Your task to perform on an android device: turn on location history Image 0: 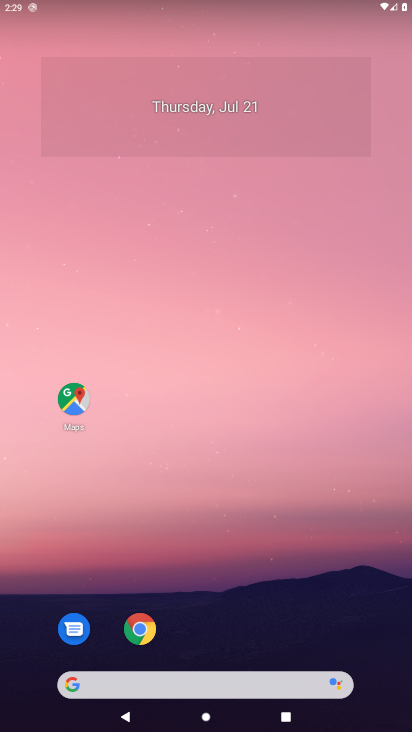
Step 0: drag from (57, 651) to (167, 264)
Your task to perform on an android device: turn on location history Image 1: 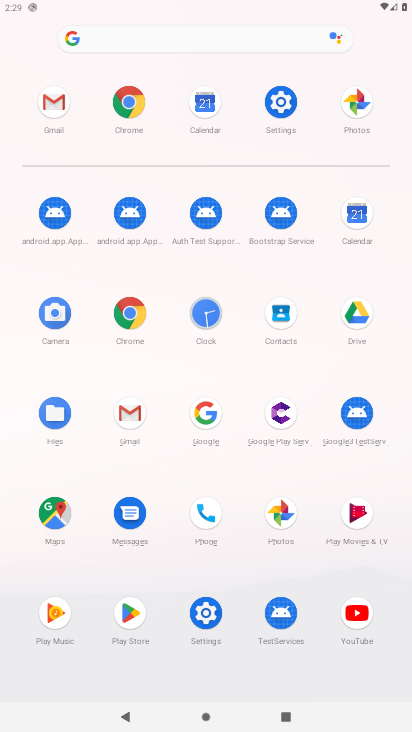
Step 1: click (206, 630)
Your task to perform on an android device: turn on location history Image 2: 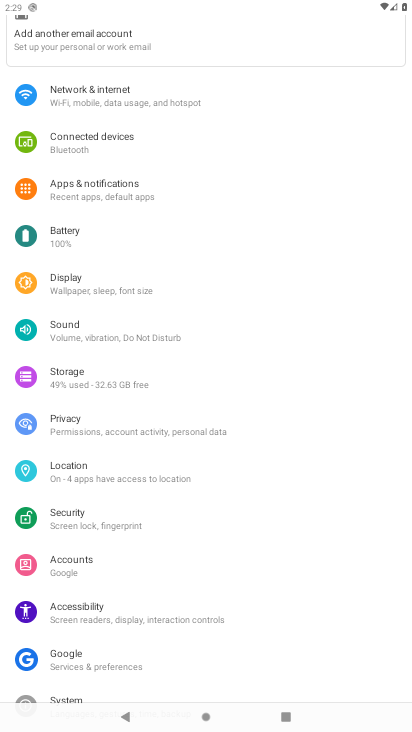
Step 2: click (86, 483)
Your task to perform on an android device: turn on location history Image 3: 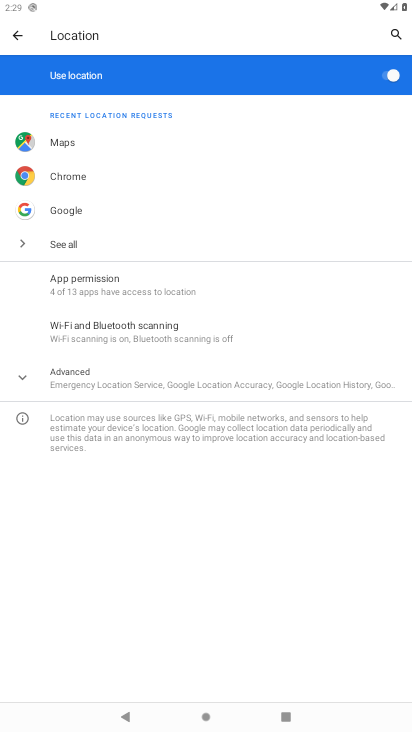
Step 3: click (70, 376)
Your task to perform on an android device: turn on location history Image 4: 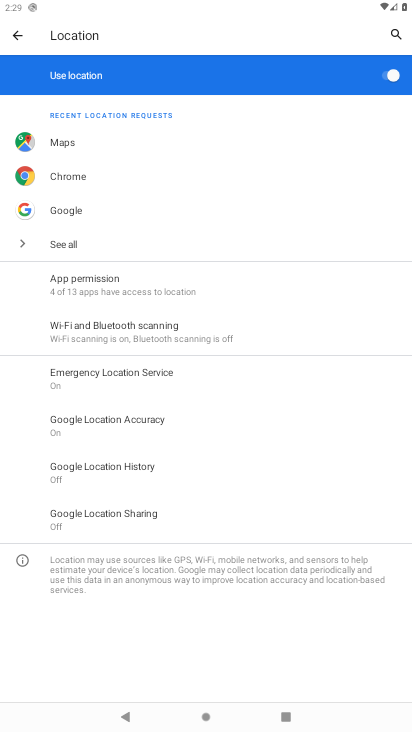
Step 4: click (93, 475)
Your task to perform on an android device: turn on location history Image 5: 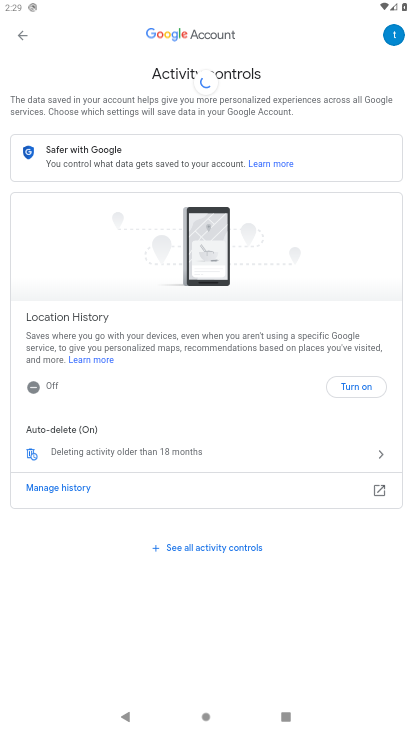
Step 5: click (351, 389)
Your task to perform on an android device: turn on location history Image 6: 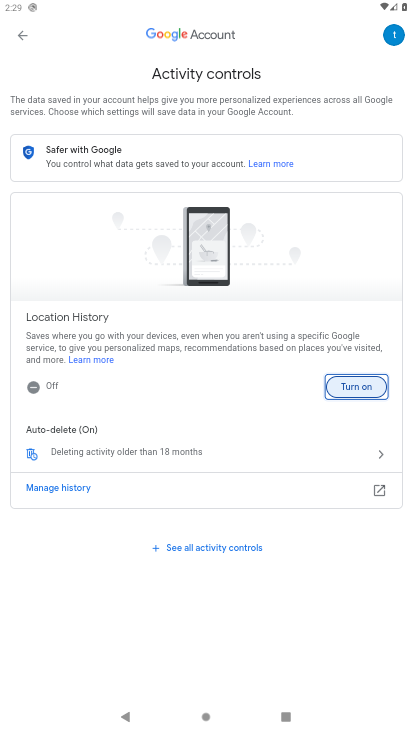
Step 6: click (356, 381)
Your task to perform on an android device: turn on location history Image 7: 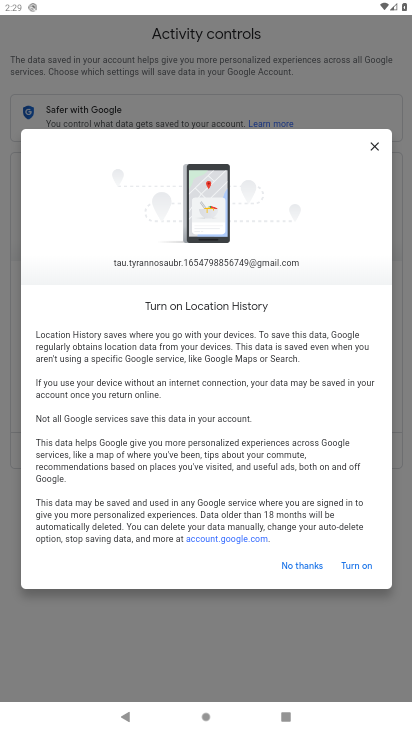
Step 7: click (359, 562)
Your task to perform on an android device: turn on location history Image 8: 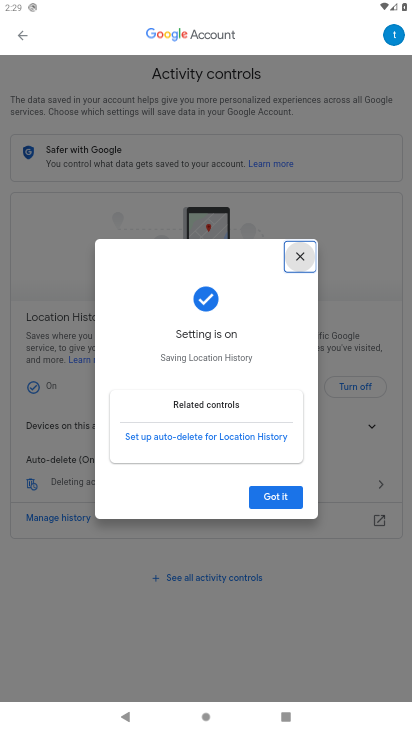
Step 8: click (287, 495)
Your task to perform on an android device: turn on location history Image 9: 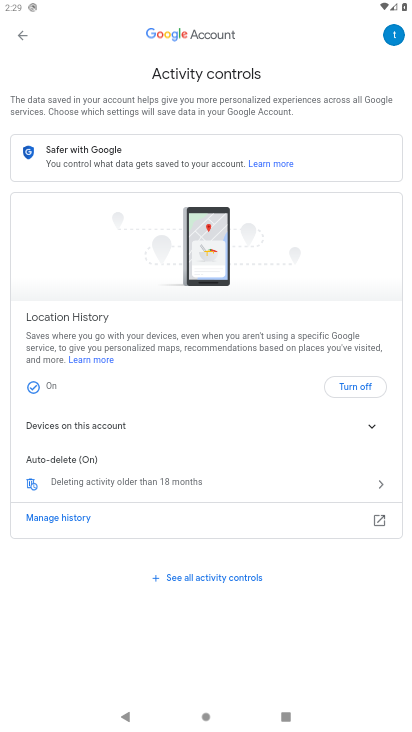
Step 9: task complete